Your task to perform on an android device: toggle show notifications on the lock screen Image 0: 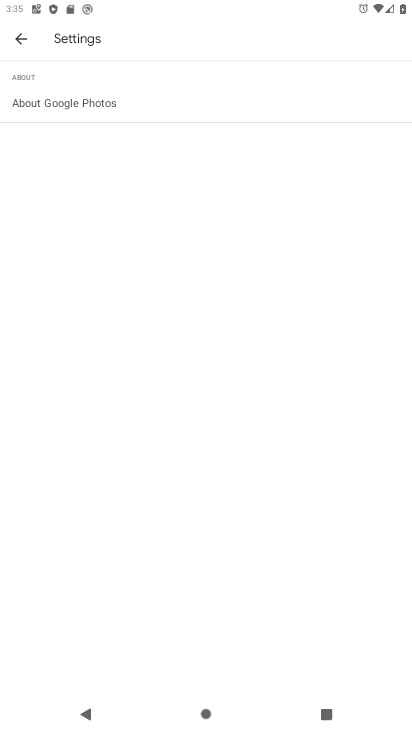
Step 0: press back button
Your task to perform on an android device: toggle show notifications on the lock screen Image 1: 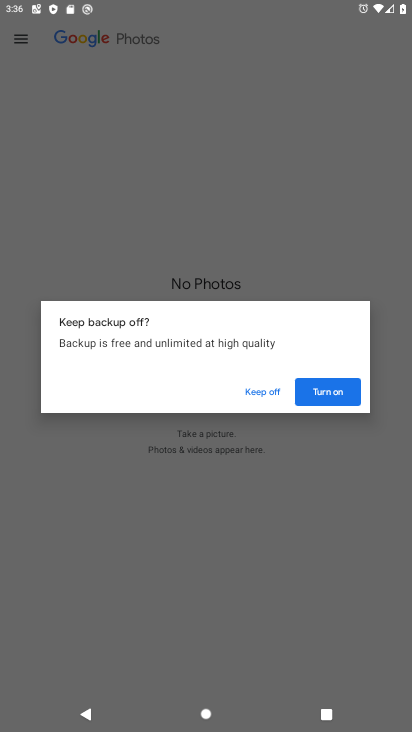
Step 1: press home button
Your task to perform on an android device: toggle show notifications on the lock screen Image 2: 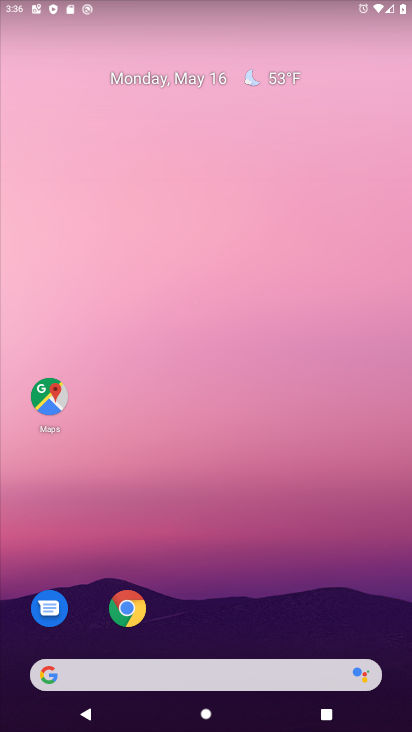
Step 2: drag from (245, 585) to (211, 106)
Your task to perform on an android device: toggle show notifications on the lock screen Image 3: 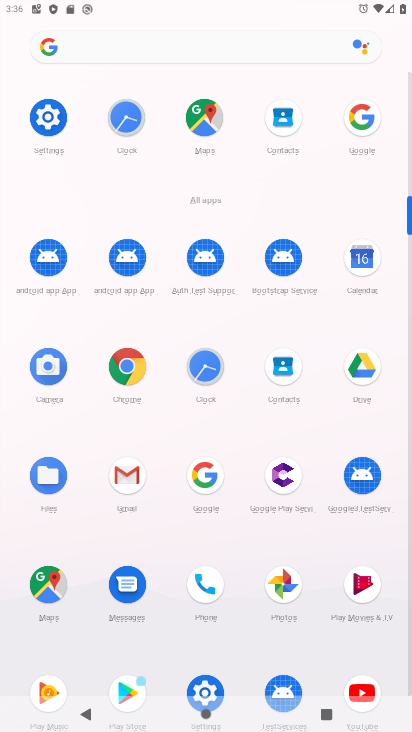
Step 3: drag from (141, 330) to (129, 274)
Your task to perform on an android device: toggle show notifications on the lock screen Image 4: 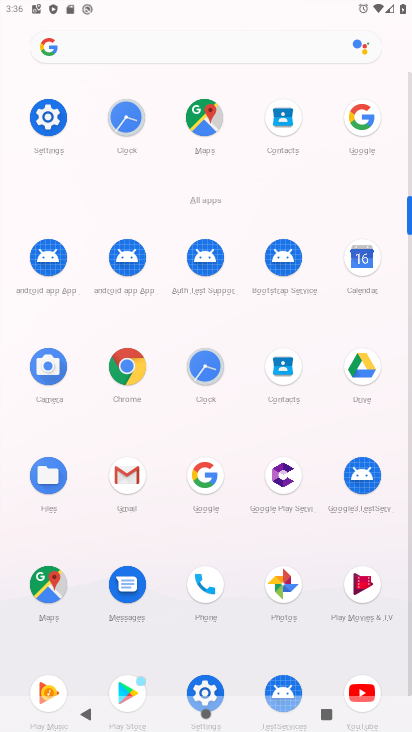
Step 4: click (48, 117)
Your task to perform on an android device: toggle show notifications on the lock screen Image 5: 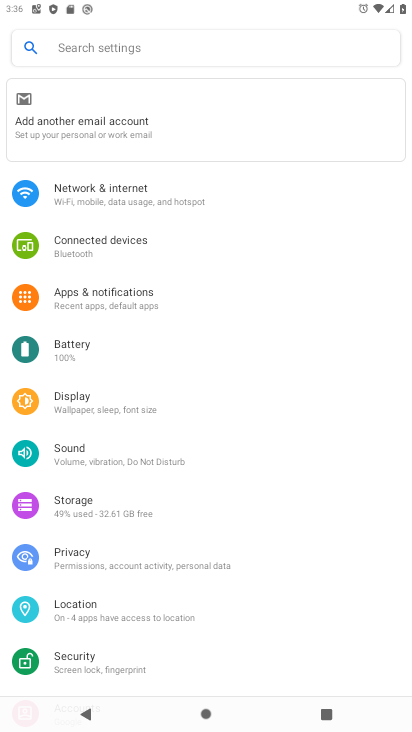
Step 5: click (87, 291)
Your task to perform on an android device: toggle show notifications on the lock screen Image 6: 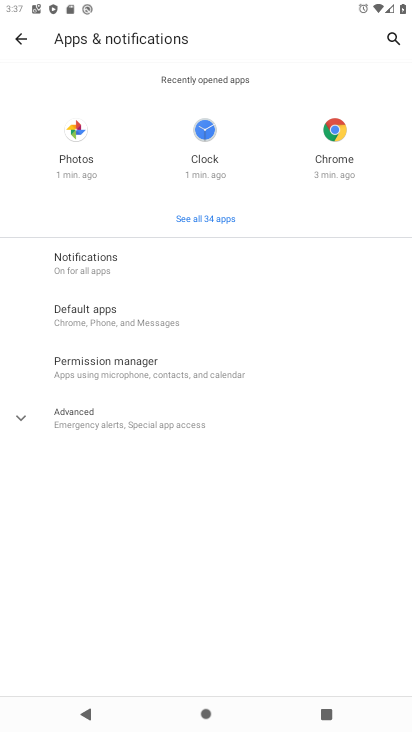
Step 6: click (87, 262)
Your task to perform on an android device: toggle show notifications on the lock screen Image 7: 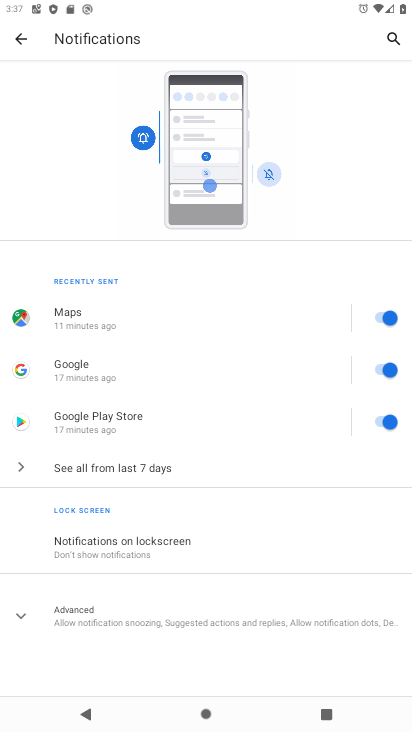
Step 7: click (148, 545)
Your task to perform on an android device: toggle show notifications on the lock screen Image 8: 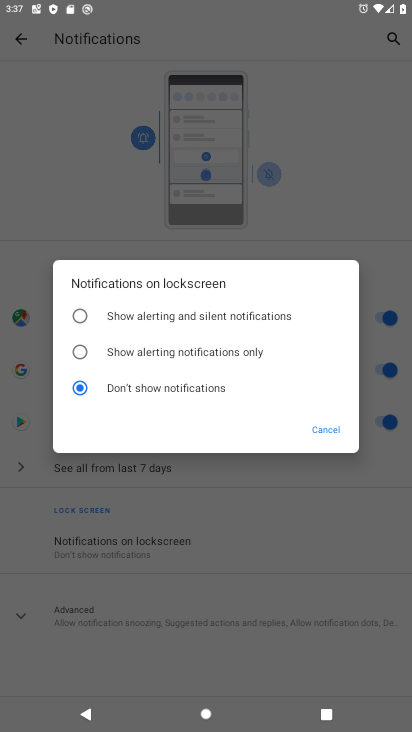
Step 8: click (164, 385)
Your task to perform on an android device: toggle show notifications on the lock screen Image 9: 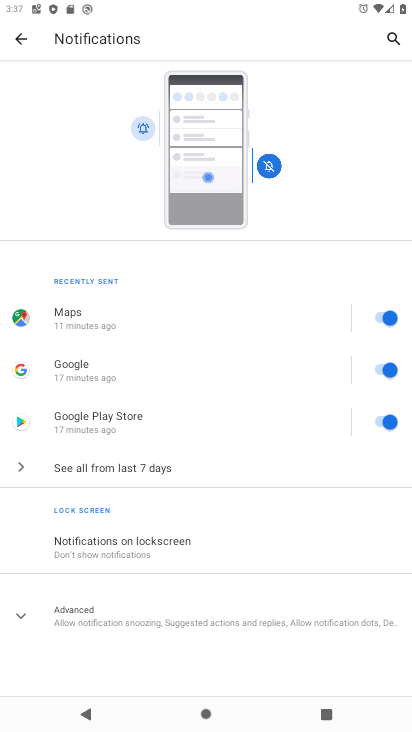
Step 9: task complete